Your task to perform on an android device: Open CNN.com Image 0: 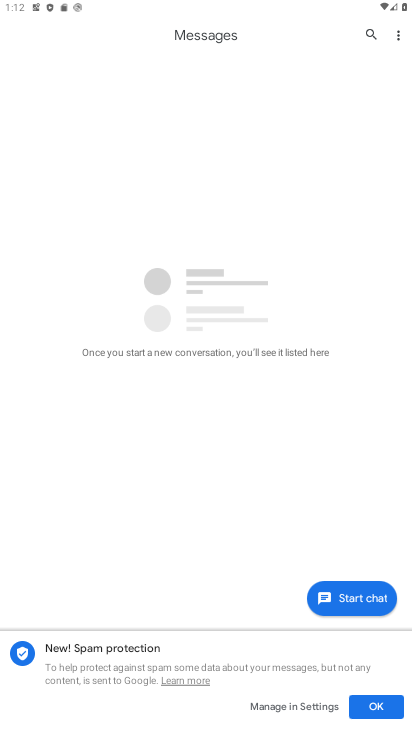
Step 0: press home button
Your task to perform on an android device: Open CNN.com Image 1: 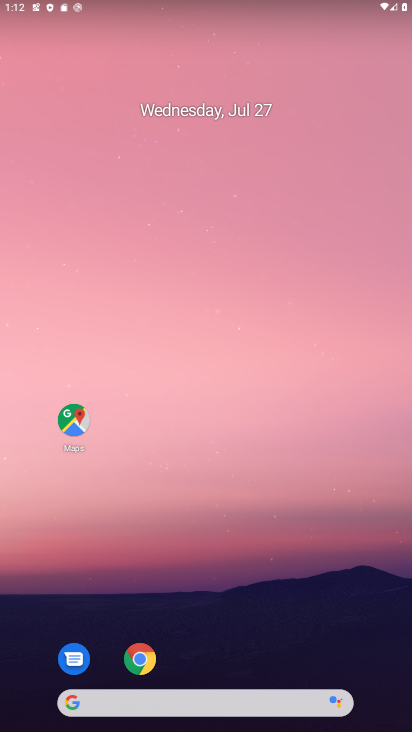
Step 1: drag from (291, 633) to (226, 41)
Your task to perform on an android device: Open CNN.com Image 2: 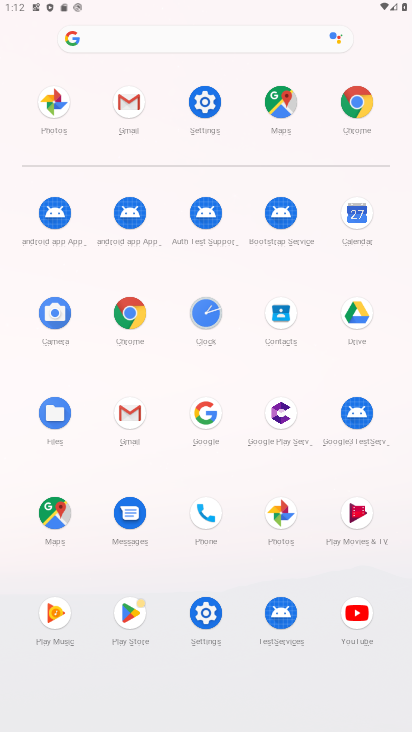
Step 2: click (360, 104)
Your task to perform on an android device: Open CNN.com Image 3: 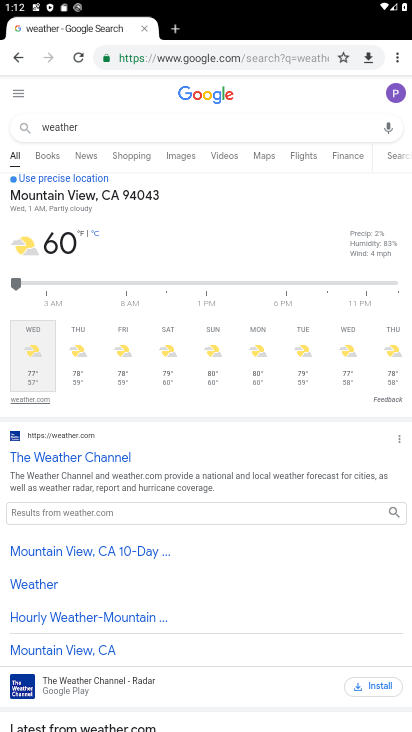
Step 3: click (197, 51)
Your task to perform on an android device: Open CNN.com Image 4: 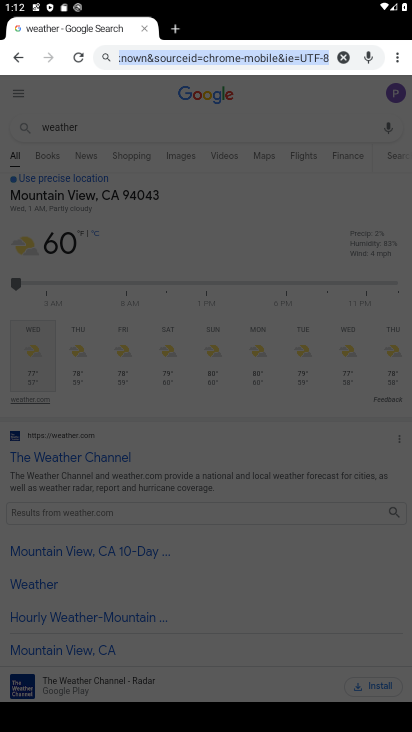
Step 4: type "cnn.com"
Your task to perform on an android device: Open CNN.com Image 5: 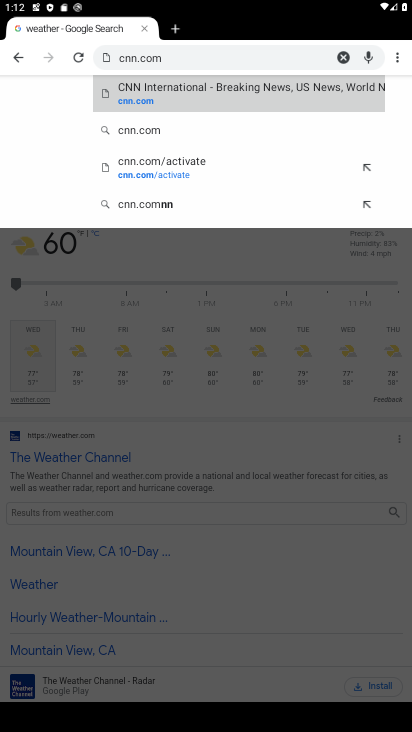
Step 5: click (258, 104)
Your task to perform on an android device: Open CNN.com Image 6: 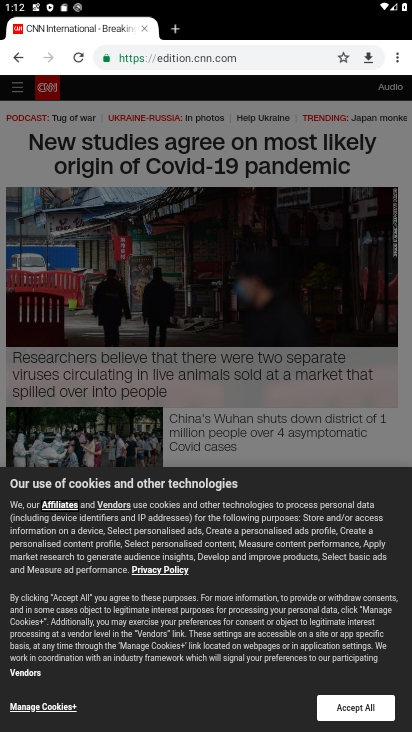
Step 6: task complete